Your task to perform on an android device: See recent photos Image 0: 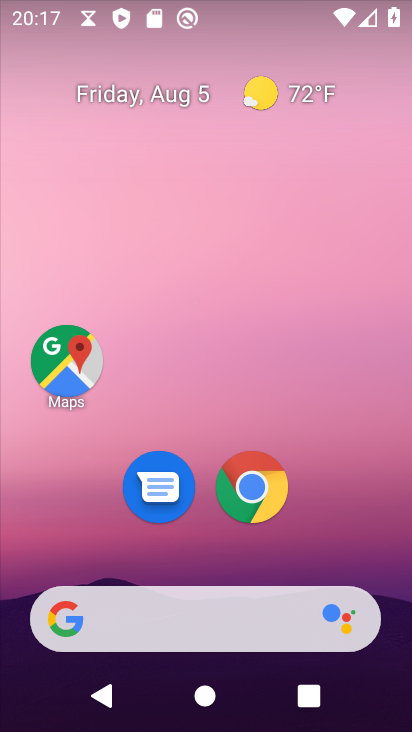
Step 0: drag from (214, 555) to (322, 1)
Your task to perform on an android device: See recent photos Image 1: 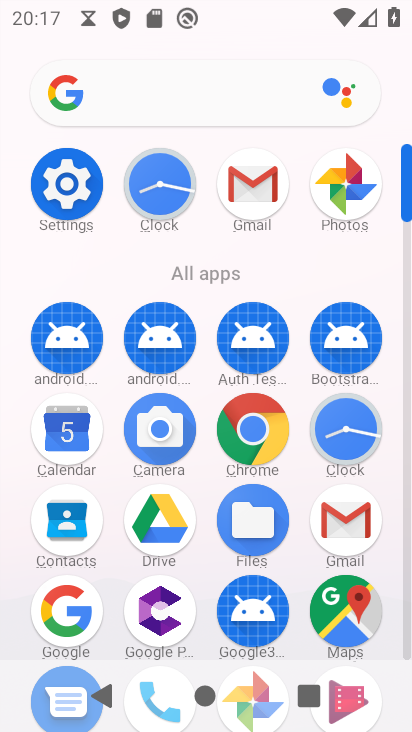
Step 1: click (344, 184)
Your task to perform on an android device: See recent photos Image 2: 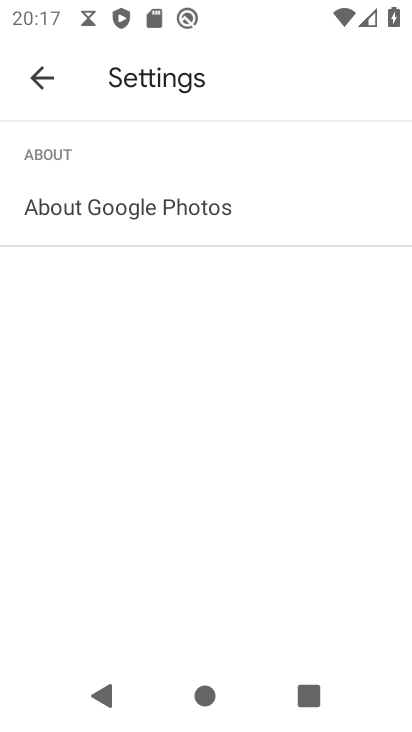
Step 2: click (42, 75)
Your task to perform on an android device: See recent photos Image 3: 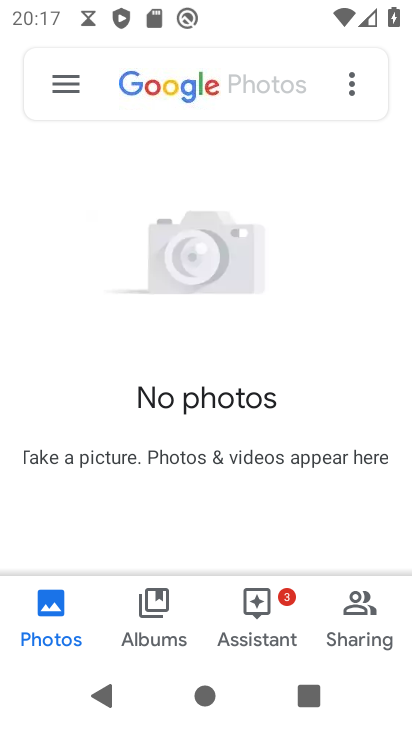
Step 3: click (364, 618)
Your task to perform on an android device: See recent photos Image 4: 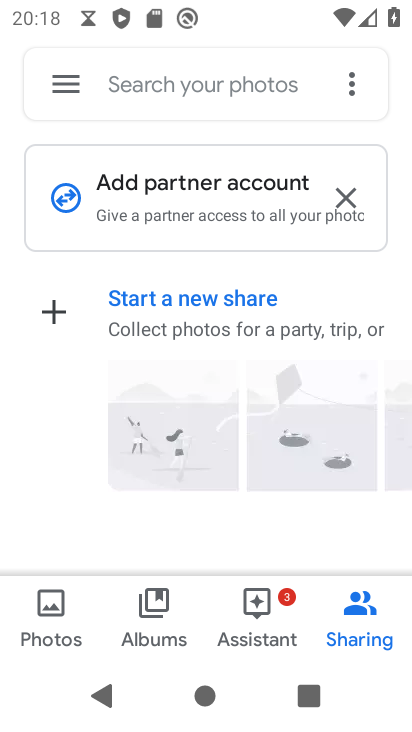
Step 4: task complete